Your task to perform on an android device: Go to Google maps Image 0: 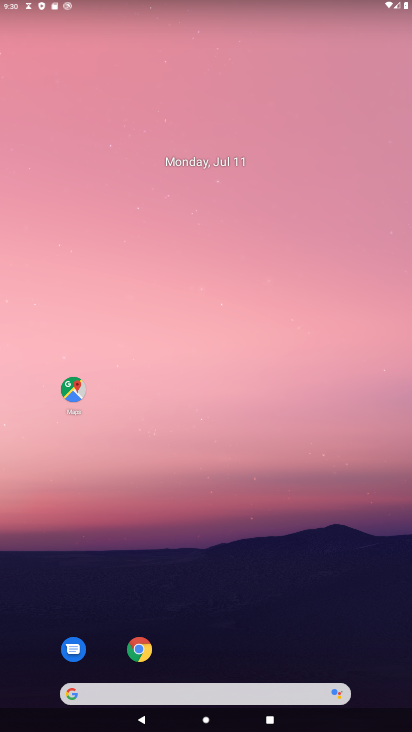
Step 0: drag from (197, 668) to (330, 1)
Your task to perform on an android device: Go to Google maps Image 1: 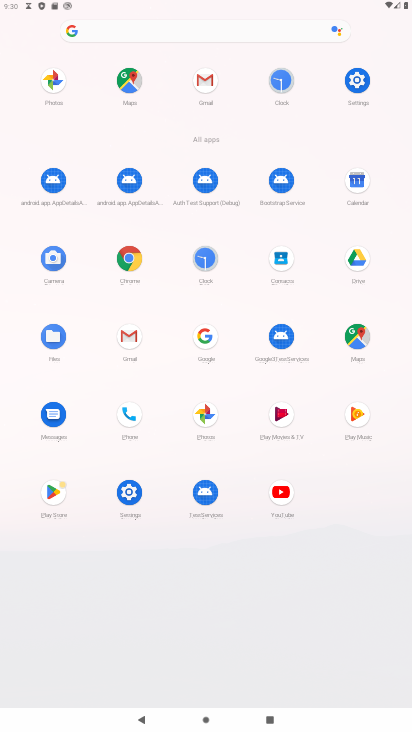
Step 1: click (357, 335)
Your task to perform on an android device: Go to Google maps Image 2: 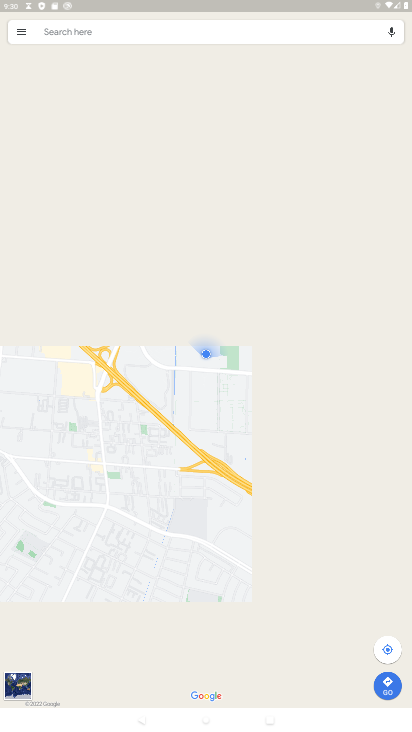
Step 2: task complete